Your task to perform on an android device: make emails show in primary in the gmail app Image 0: 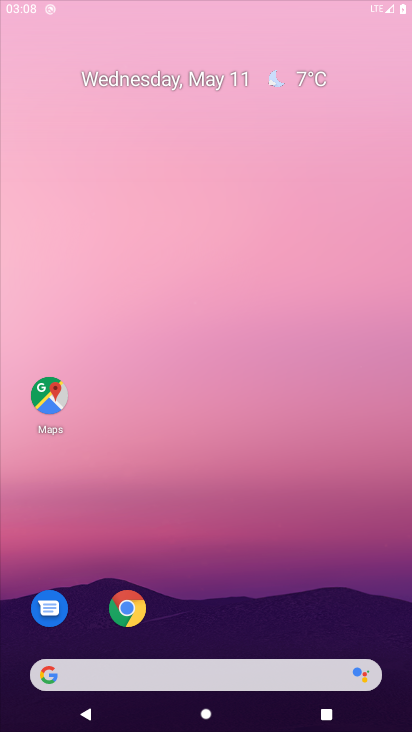
Step 0: press home button
Your task to perform on an android device: make emails show in primary in the gmail app Image 1: 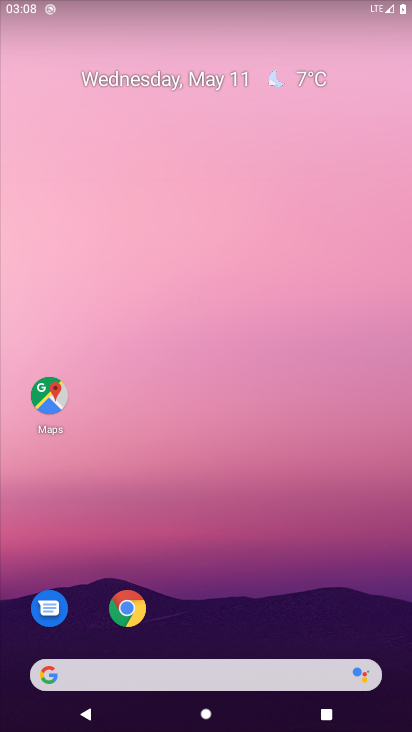
Step 1: drag from (196, 641) to (280, 175)
Your task to perform on an android device: make emails show in primary in the gmail app Image 2: 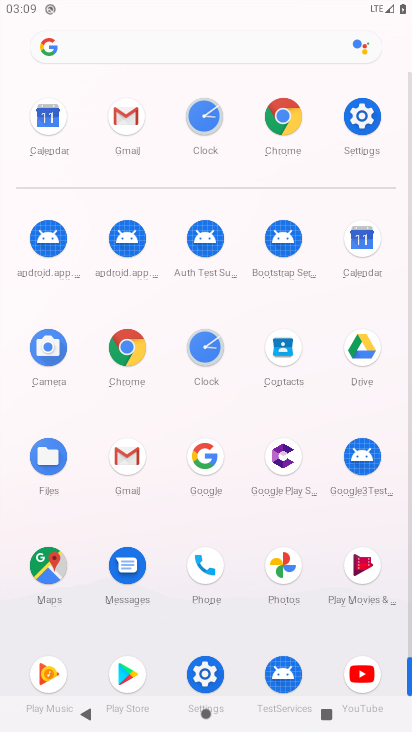
Step 2: click (121, 453)
Your task to perform on an android device: make emails show in primary in the gmail app Image 3: 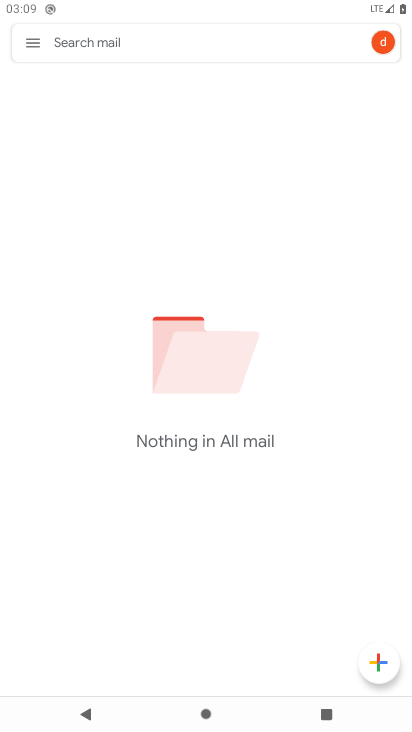
Step 3: click (37, 41)
Your task to perform on an android device: make emails show in primary in the gmail app Image 4: 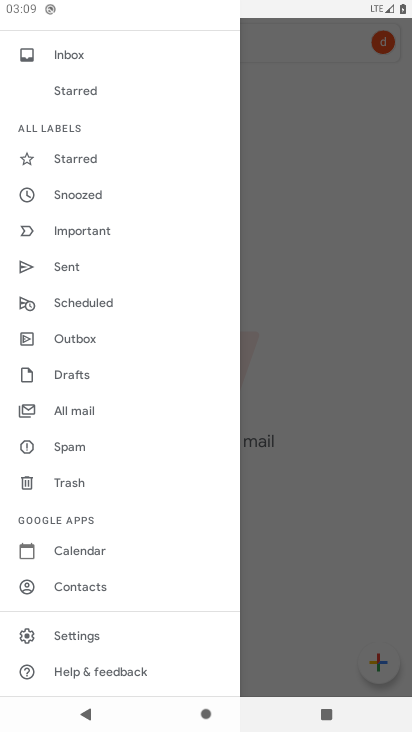
Step 4: click (111, 629)
Your task to perform on an android device: make emails show in primary in the gmail app Image 5: 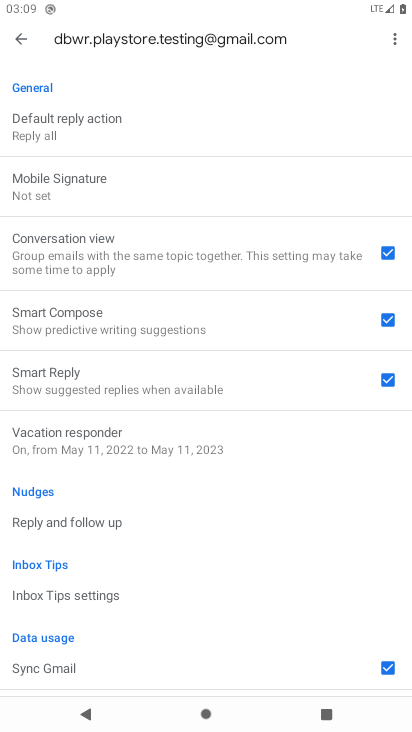
Step 5: drag from (113, 647) to (141, 421)
Your task to perform on an android device: make emails show in primary in the gmail app Image 6: 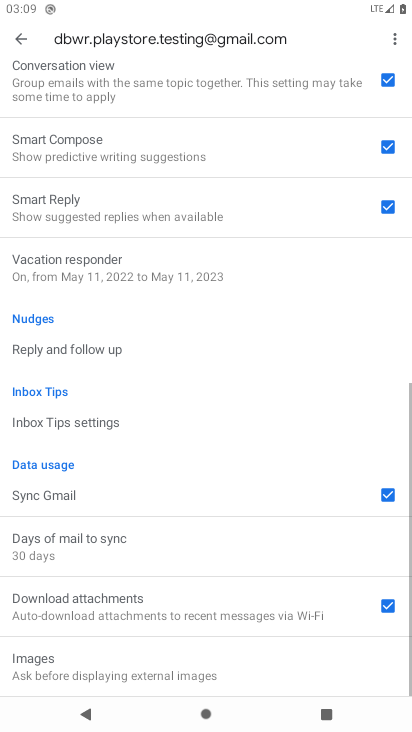
Step 6: drag from (143, 447) to (167, 696)
Your task to perform on an android device: make emails show in primary in the gmail app Image 7: 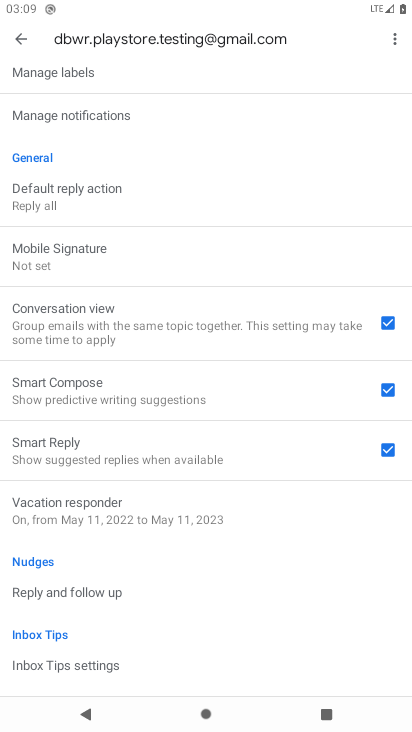
Step 7: drag from (140, 175) to (178, 730)
Your task to perform on an android device: make emails show in primary in the gmail app Image 8: 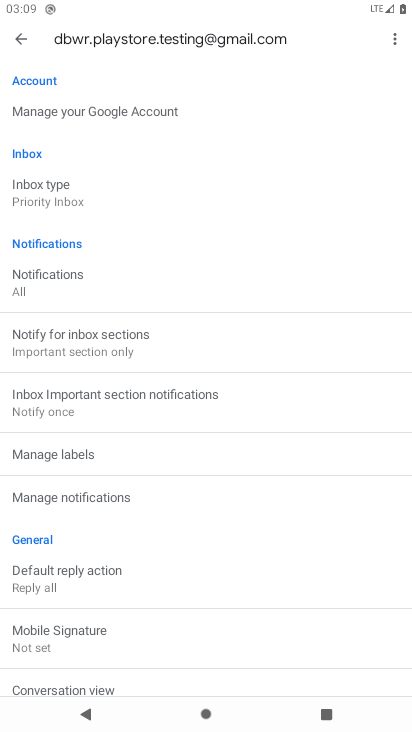
Step 8: click (102, 186)
Your task to perform on an android device: make emails show in primary in the gmail app Image 9: 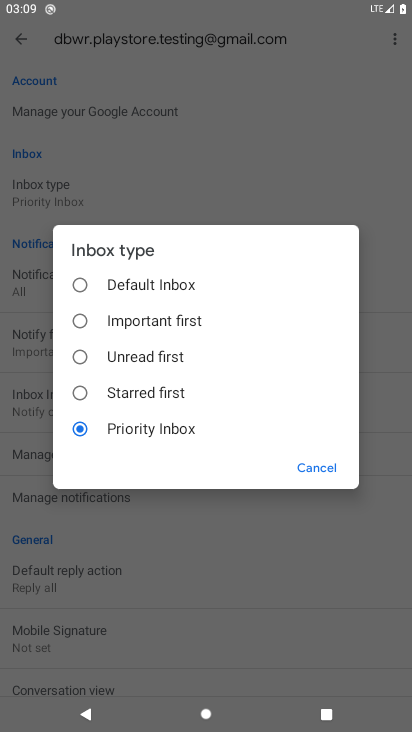
Step 9: click (77, 283)
Your task to perform on an android device: make emails show in primary in the gmail app Image 10: 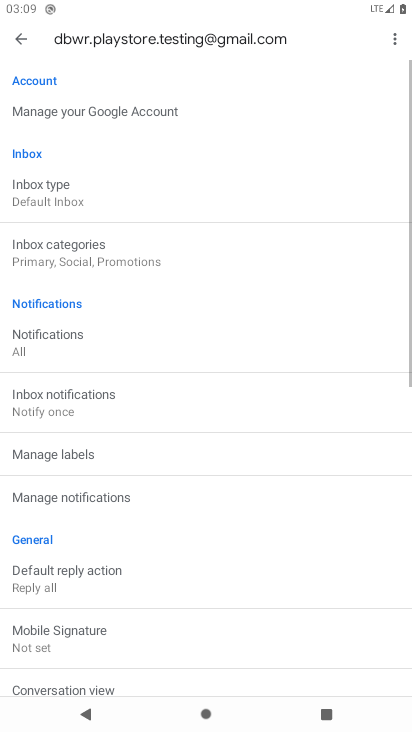
Step 10: task complete